Your task to perform on an android device: change your default location settings in chrome Image 0: 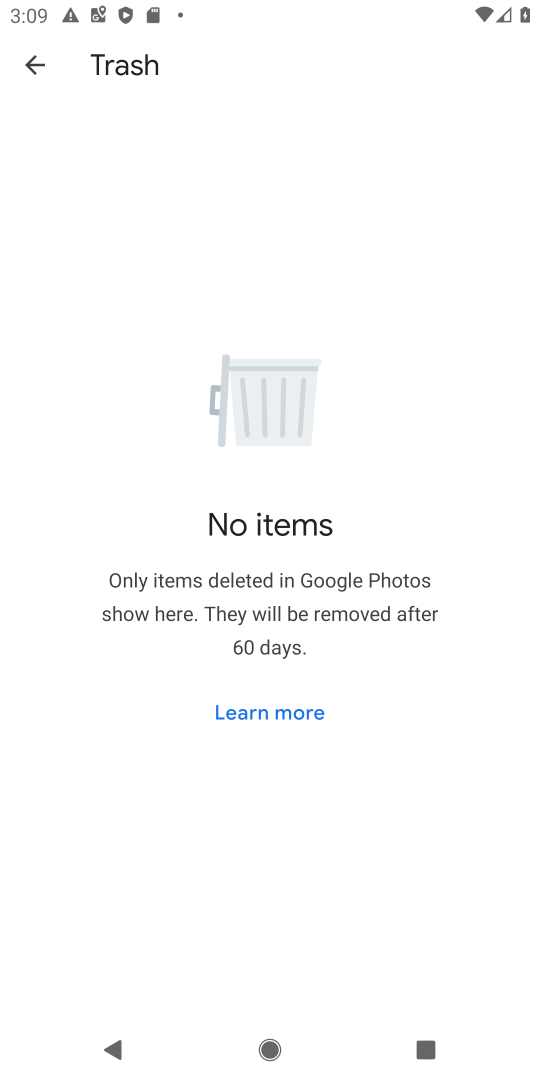
Step 0: press back button
Your task to perform on an android device: change your default location settings in chrome Image 1: 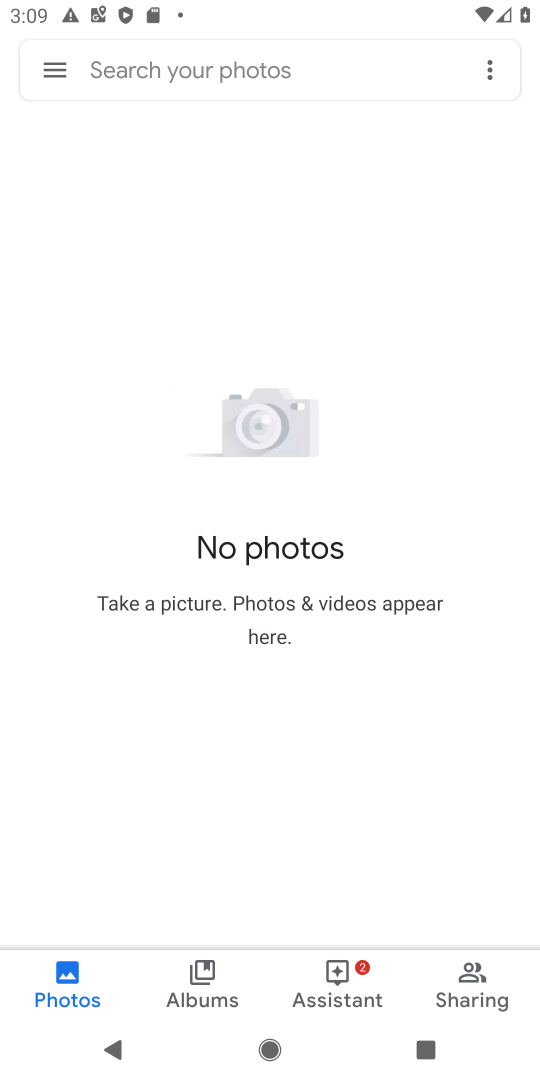
Step 1: press back button
Your task to perform on an android device: change your default location settings in chrome Image 2: 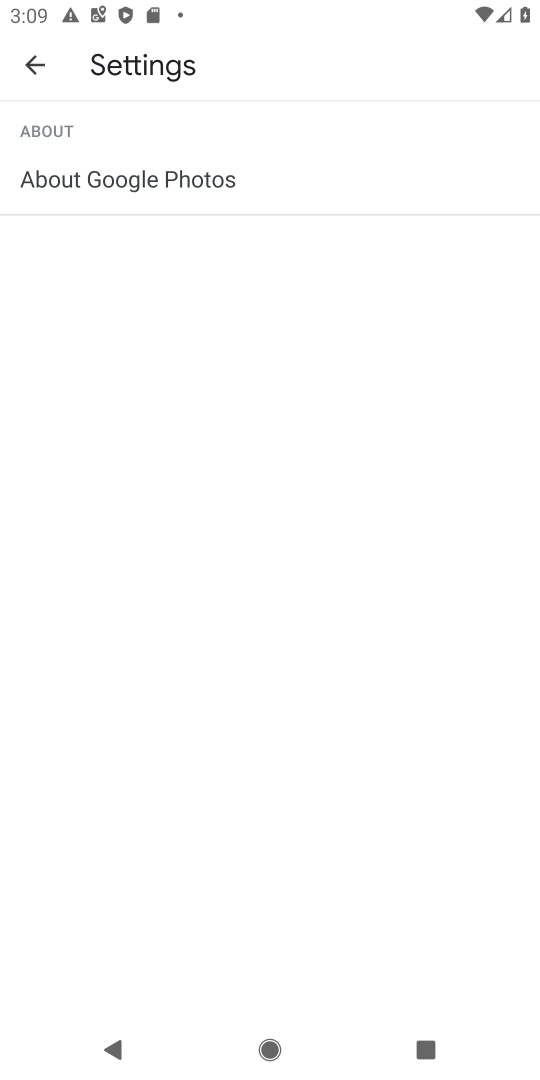
Step 2: press back button
Your task to perform on an android device: change your default location settings in chrome Image 3: 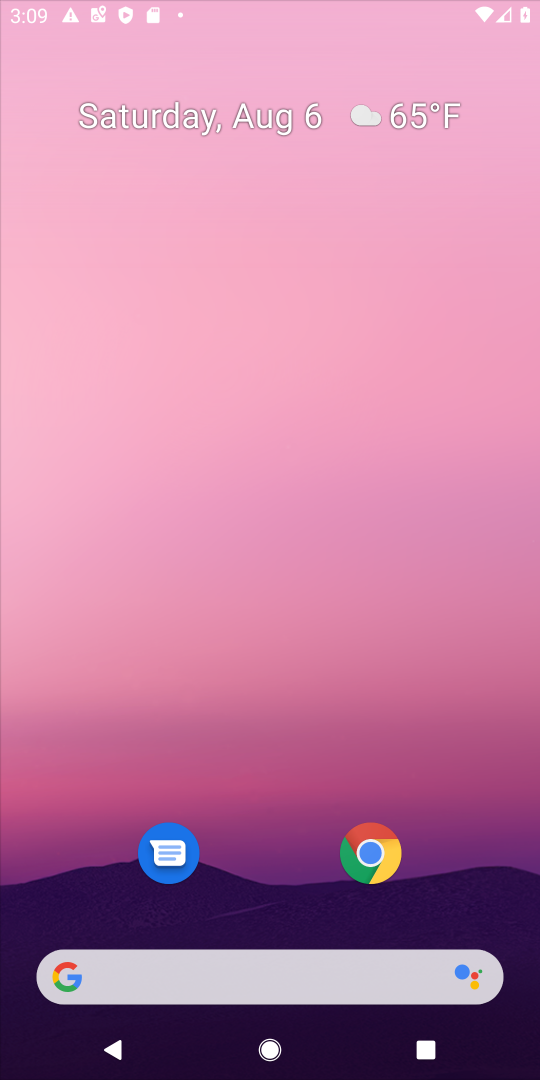
Step 3: press back button
Your task to perform on an android device: change your default location settings in chrome Image 4: 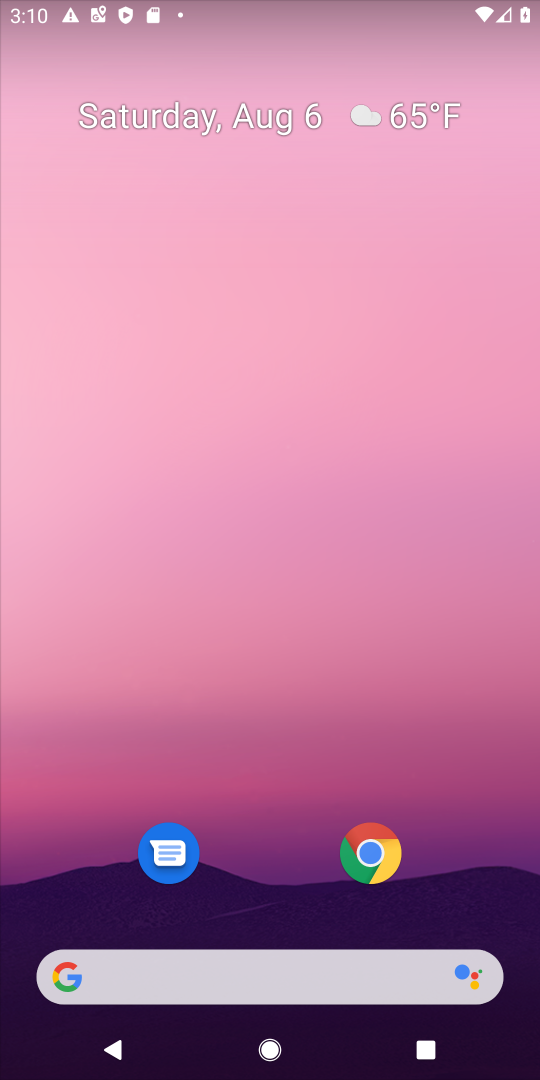
Step 4: click (360, 844)
Your task to perform on an android device: change your default location settings in chrome Image 5: 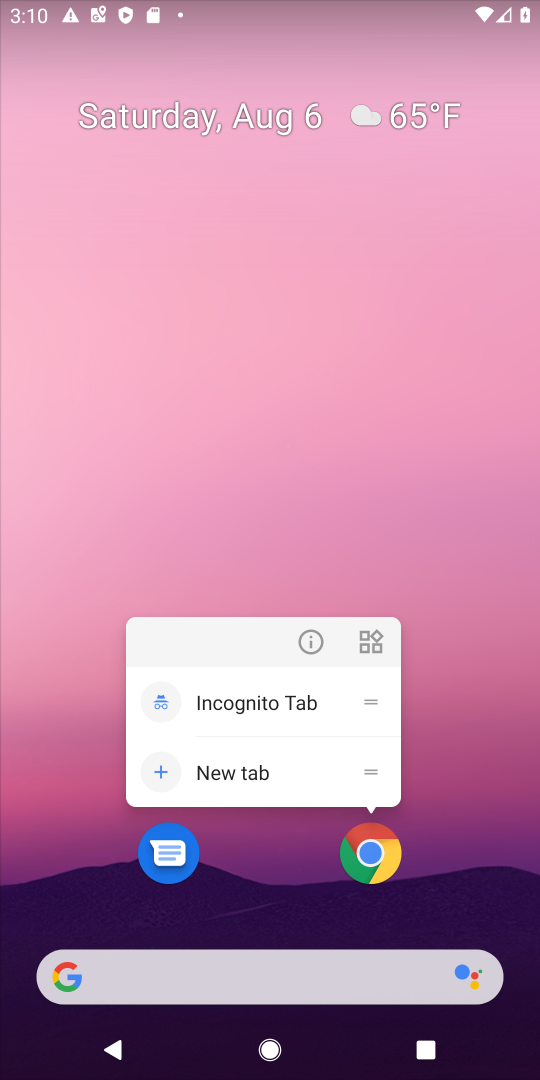
Step 5: click (370, 851)
Your task to perform on an android device: change your default location settings in chrome Image 6: 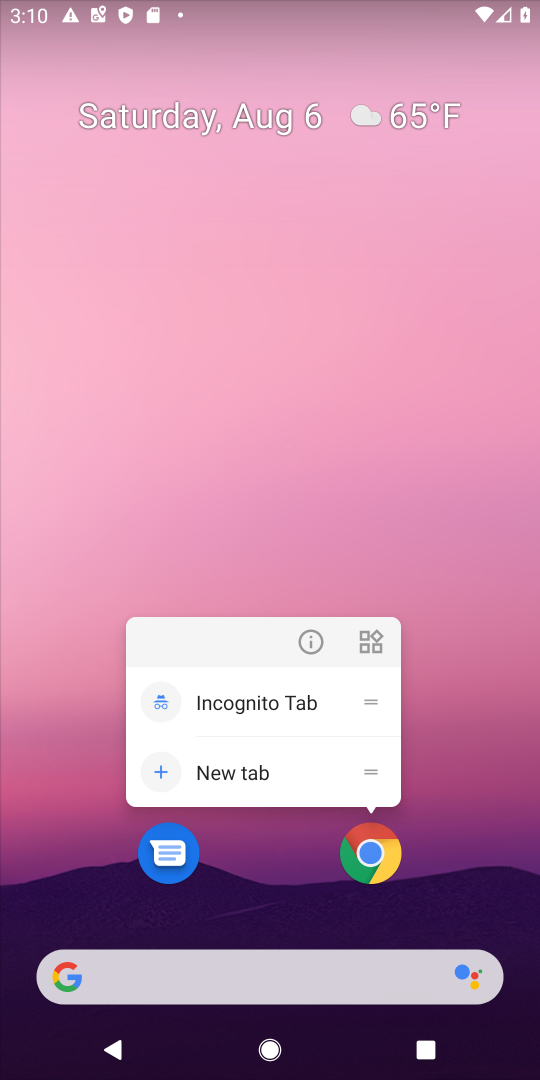
Step 6: click (370, 860)
Your task to perform on an android device: change your default location settings in chrome Image 7: 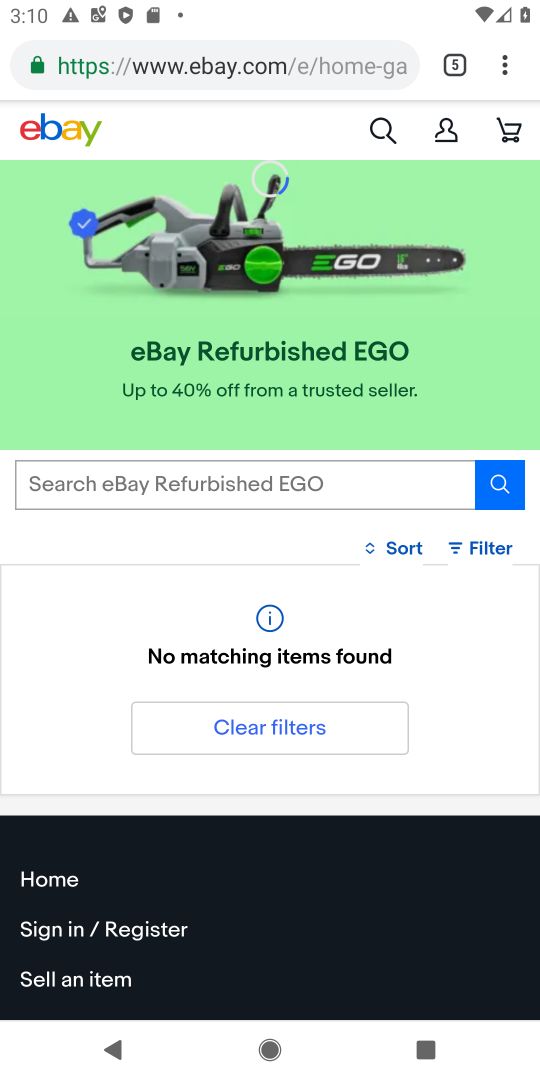
Step 7: drag from (503, 68) to (281, 801)
Your task to perform on an android device: change your default location settings in chrome Image 8: 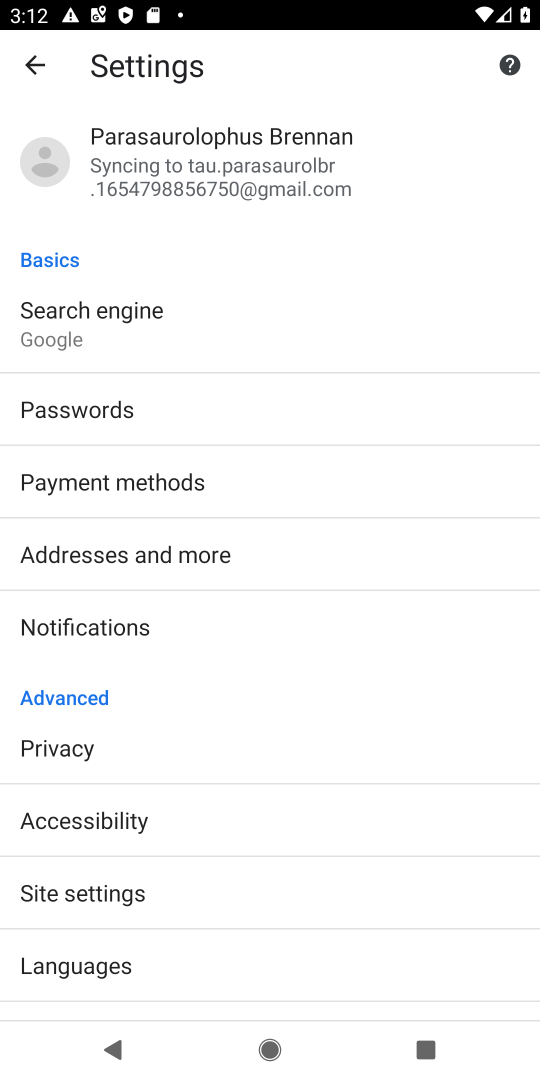
Step 8: drag from (210, 930) to (342, 163)
Your task to perform on an android device: change your default location settings in chrome Image 9: 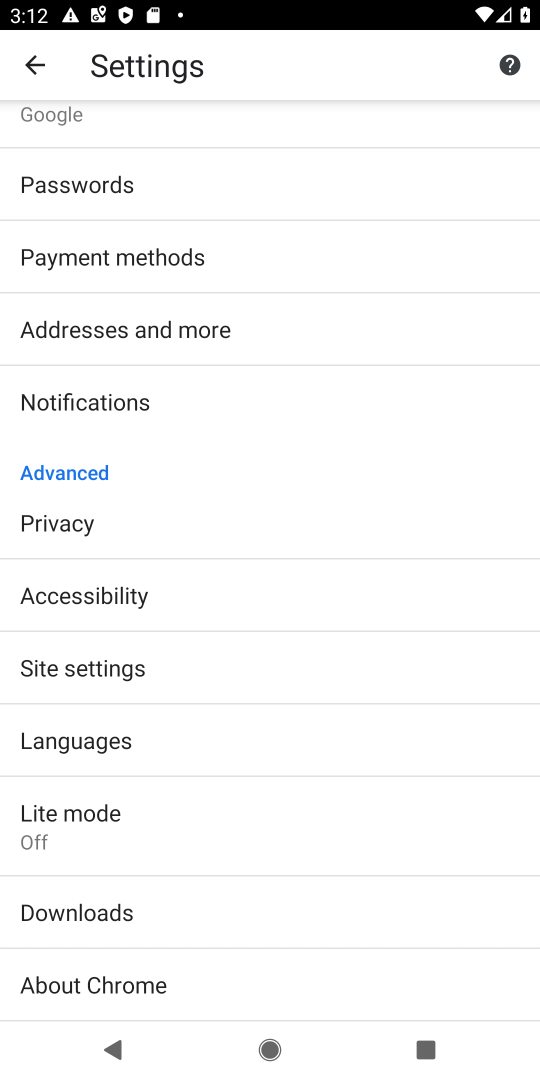
Step 9: click (90, 660)
Your task to perform on an android device: change your default location settings in chrome Image 10: 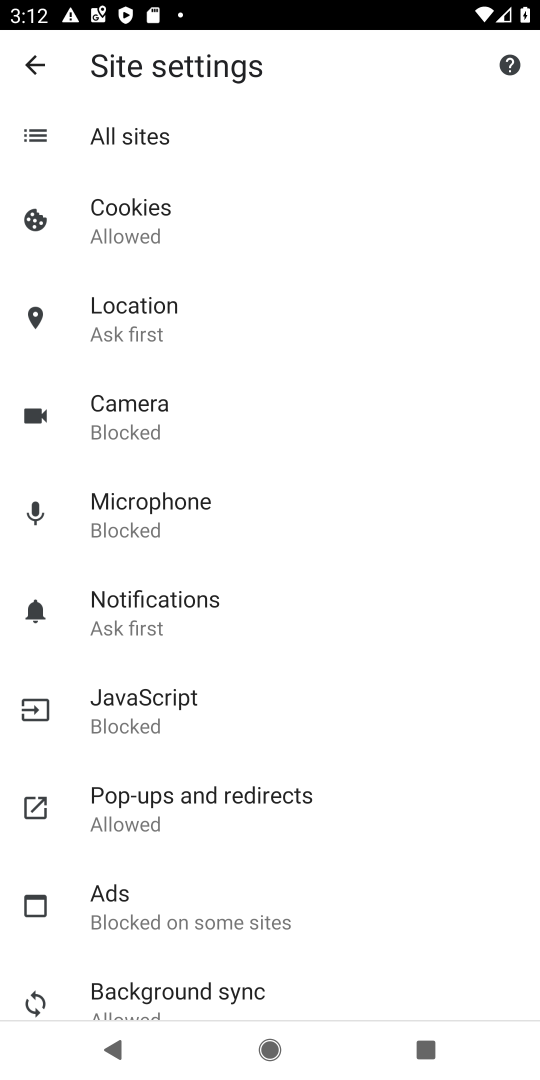
Step 10: click (167, 318)
Your task to perform on an android device: change your default location settings in chrome Image 11: 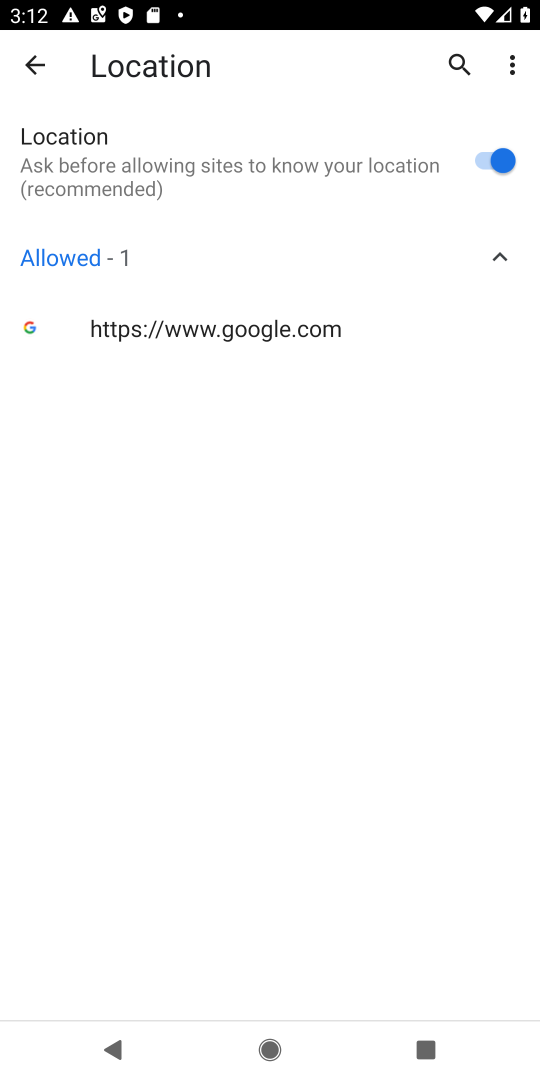
Step 11: click (498, 164)
Your task to perform on an android device: change your default location settings in chrome Image 12: 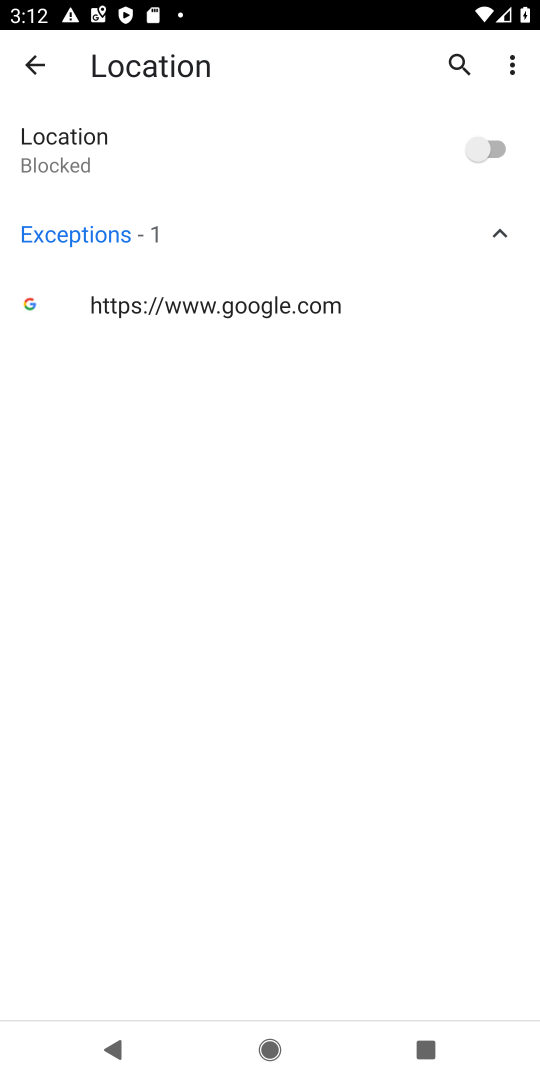
Step 12: task complete